Your task to perform on an android device: Open Reddit.com Image 0: 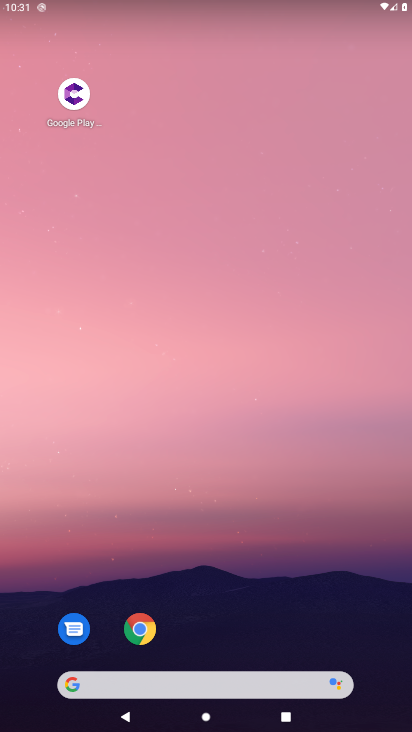
Step 0: drag from (195, 681) to (191, 126)
Your task to perform on an android device: Open Reddit.com Image 1: 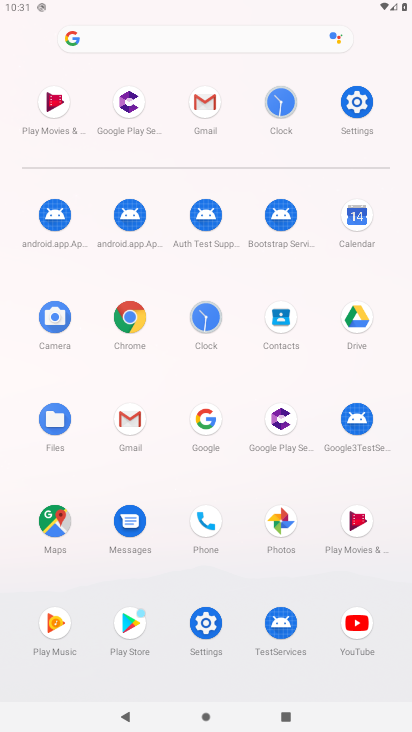
Step 1: click (199, 409)
Your task to perform on an android device: Open Reddit.com Image 2: 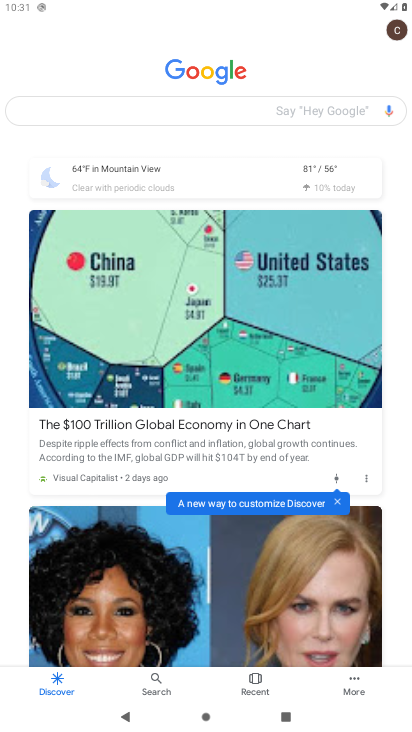
Step 2: drag from (146, 108) to (70, 108)
Your task to perform on an android device: Open Reddit.com Image 3: 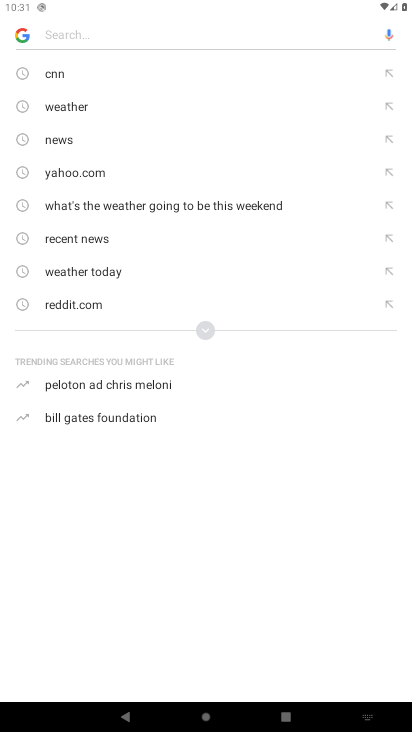
Step 3: click (75, 305)
Your task to perform on an android device: Open Reddit.com Image 4: 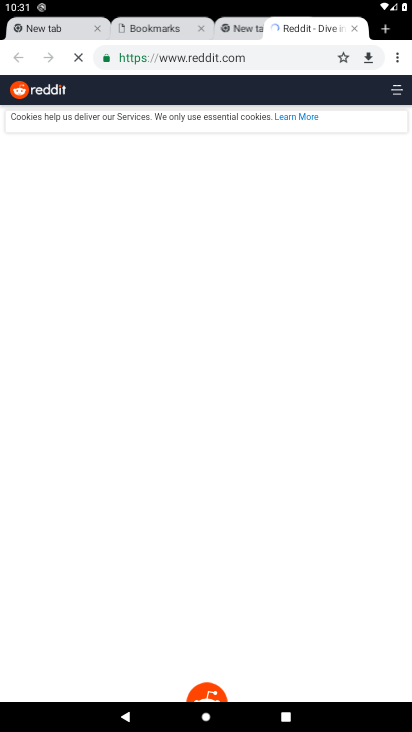
Step 4: task complete